Your task to perform on an android device: toggle sleep mode Image 0: 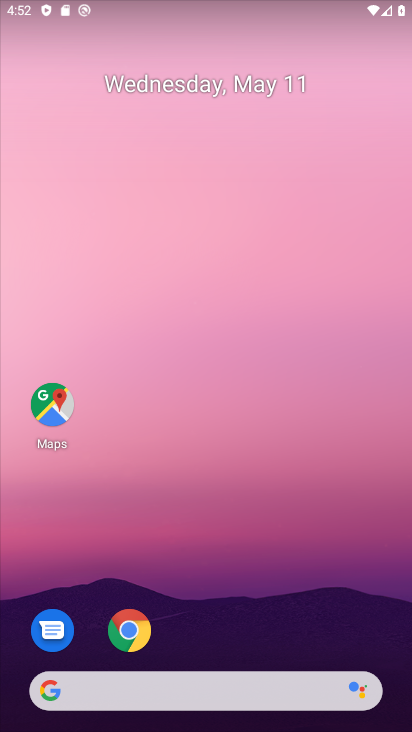
Step 0: drag from (179, 657) to (310, 132)
Your task to perform on an android device: toggle sleep mode Image 1: 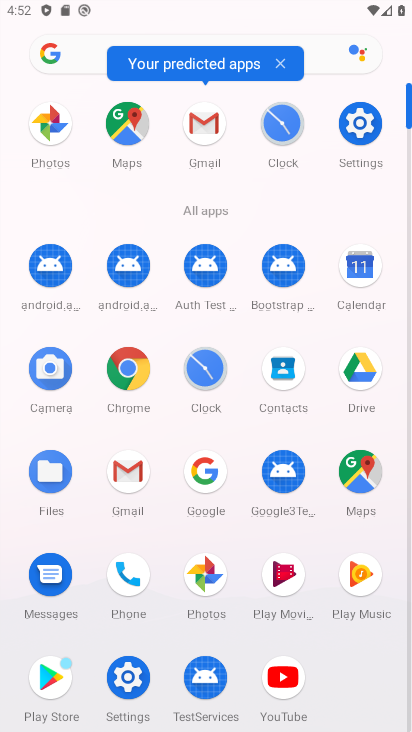
Step 1: drag from (183, 633) to (199, 406)
Your task to perform on an android device: toggle sleep mode Image 2: 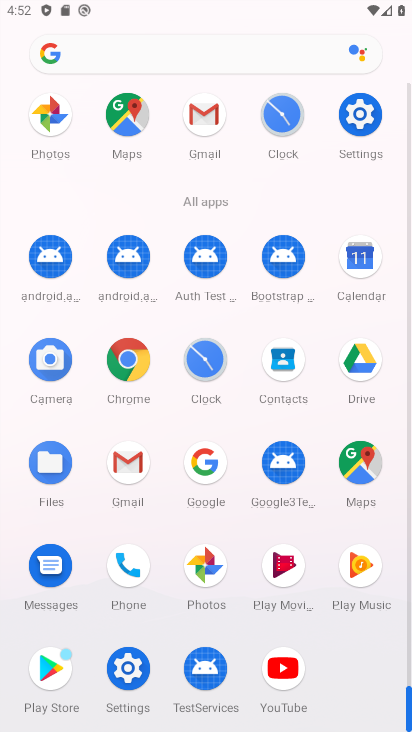
Step 2: click (137, 652)
Your task to perform on an android device: toggle sleep mode Image 3: 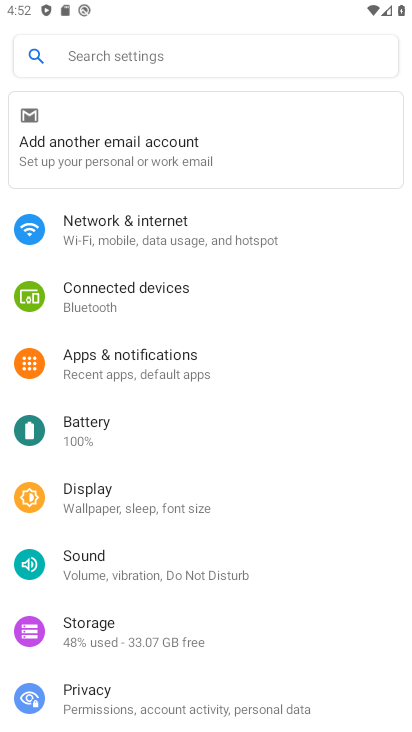
Step 3: click (137, 501)
Your task to perform on an android device: toggle sleep mode Image 4: 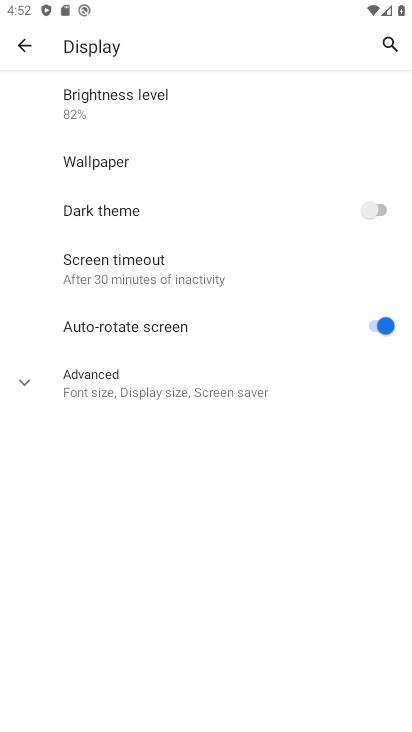
Step 4: click (185, 385)
Your task to perform on an android device: toggle sleep mode Image 5: 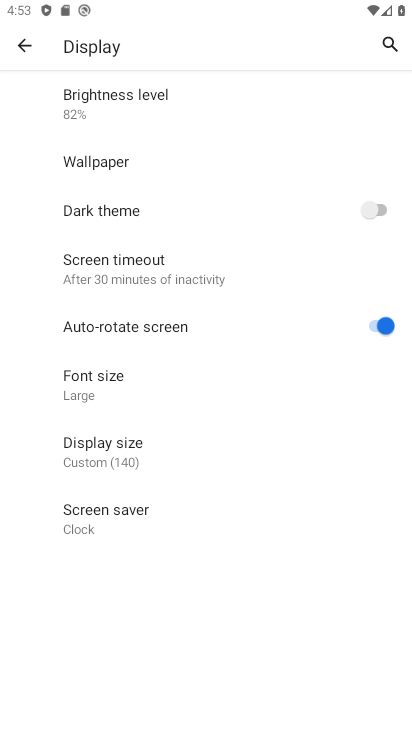
Step 5: task complete